Your task to perform on an android device: Search for vegetarian restaurants on Maps Image 0: 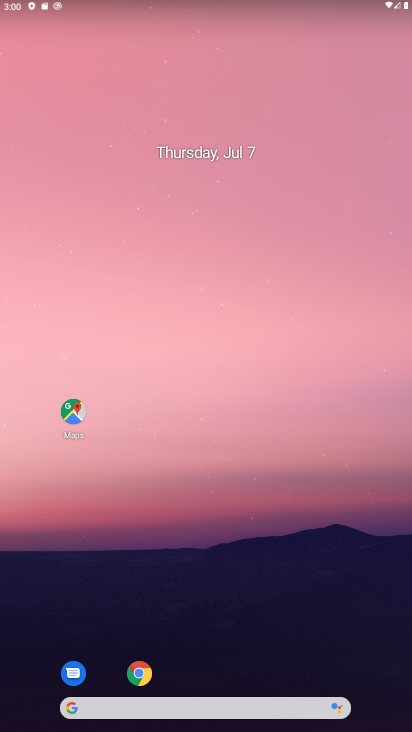
Step 0: press home button
Your task to perform on an android device: Search for vegetarian restaurants on Maps Image 1: 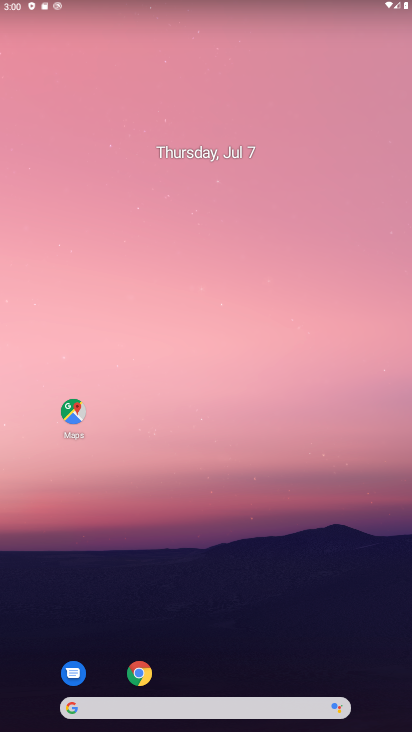
Step 1: click (74, 420)
Your task to perform on an android device: Search for vegetarian restaurants on Maps Image 2: 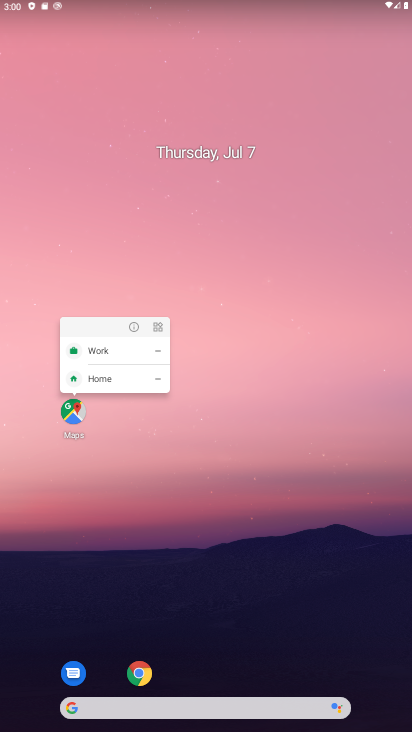
Step 2: click (318, 601)
Your task to perform on an android device: Search for vegetarian restaurants on Maps Image 3: 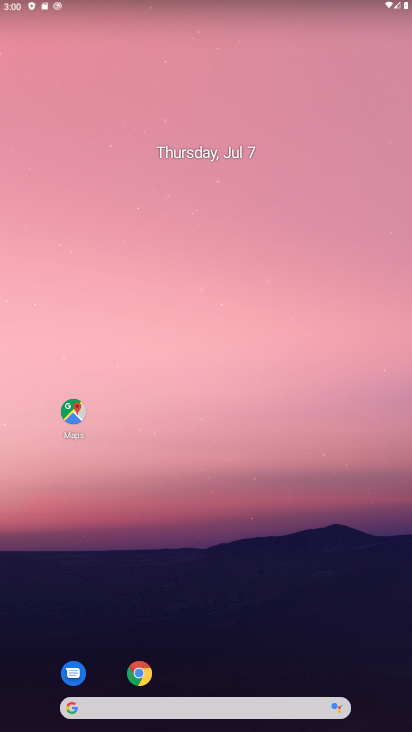
Step 3: drag from (267, 662) to (199, 7)
Your task to perform on an android device: Search for vegetarian restaurants on Maps Image 4: 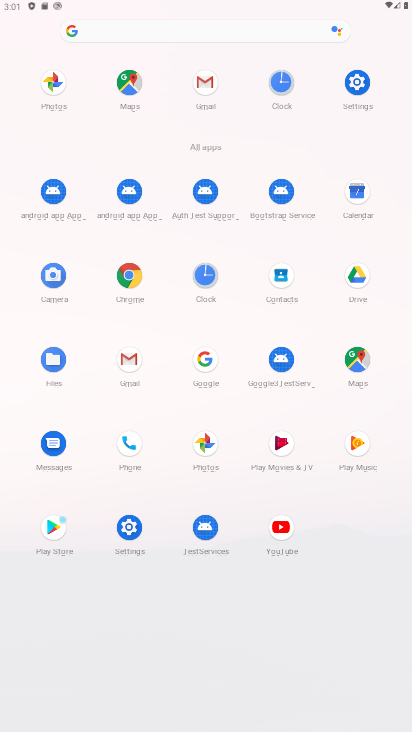
Step 4: click (350, 362)
Your task to perform on an android device: Search for vegetarian restaurants on Maps Image 5: 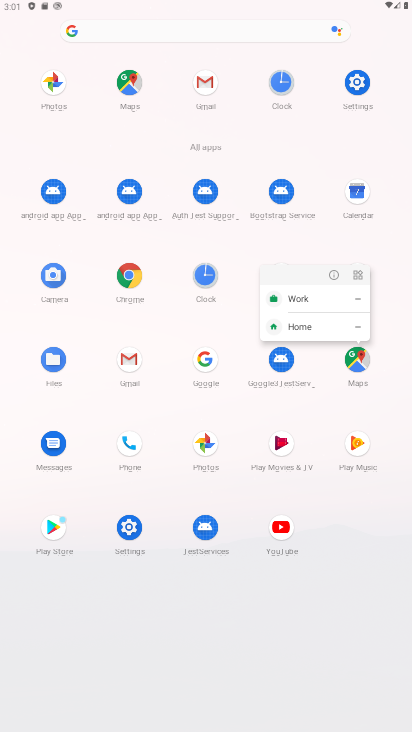
Step 5: click (336, 562)
Your task to perform on an android device: Search for vegetarian restaurants on Maps Image 6: 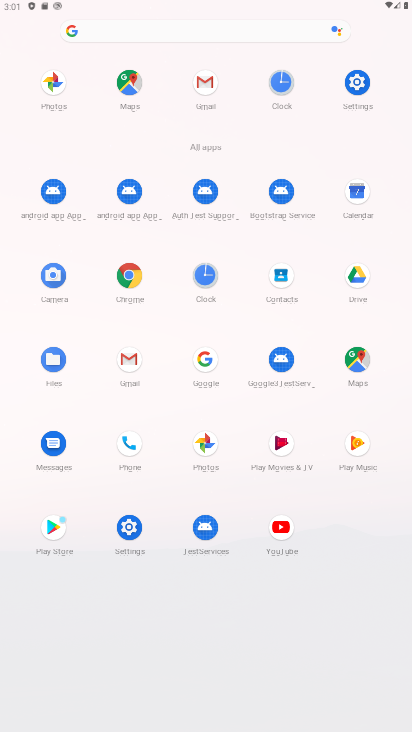
Step 6: click (354, 364)
Your task to perform on an android device: Search for vegetarian restaurants on Maps Image 7: 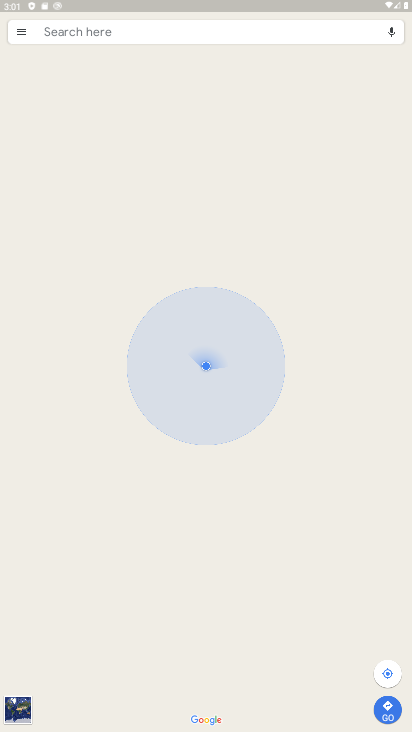
Step 7: click (131, 28)
Your task to perform on an android device: Search for vegetarian restaurants on Maps Image 8: 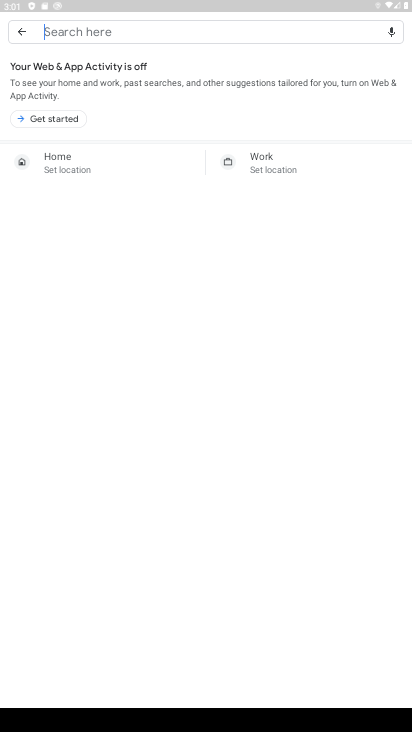
Step 8: click (28, 121)
Your task to perform on an android device: Search for vegetarian restaurants on Maps Image 9: 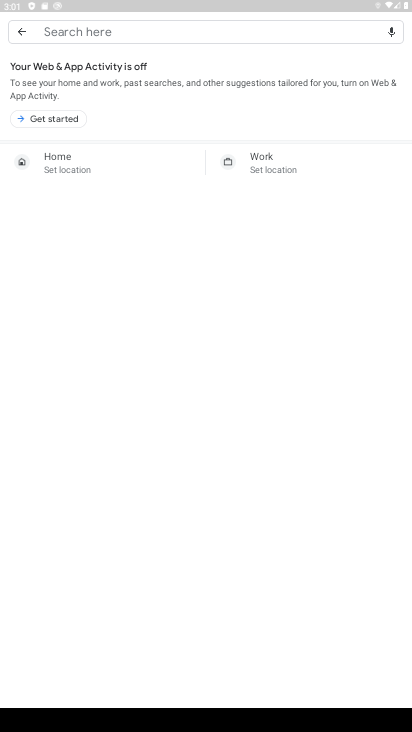
Step 9: click (39, 119)
Your task to perform on an android device: Search for vegetarian restaurants on Maps Image 10: 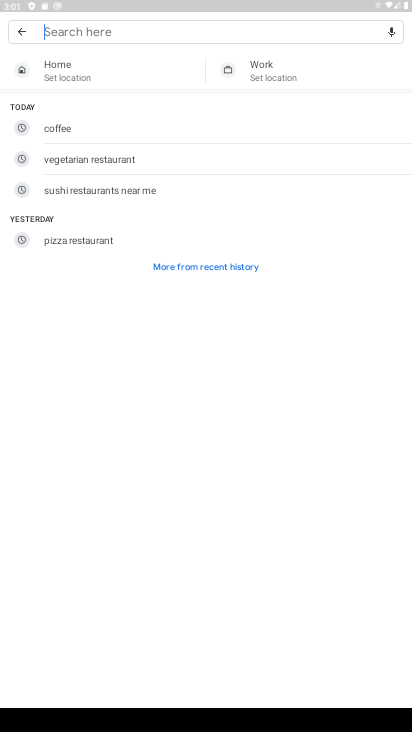
Step 10: click (85, 158)
Your task to perform on an android device: Search for vegetarian restaurants on Maps Image 11: 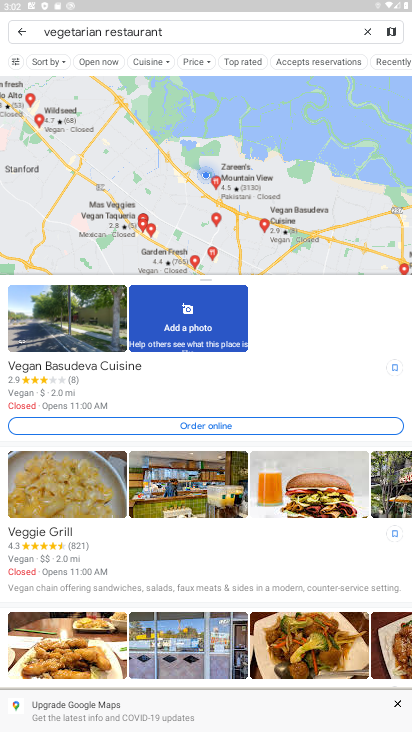
Step 11: task complete